Your task to perform on an android device: turn off smart reply in the gmail app Image 0: 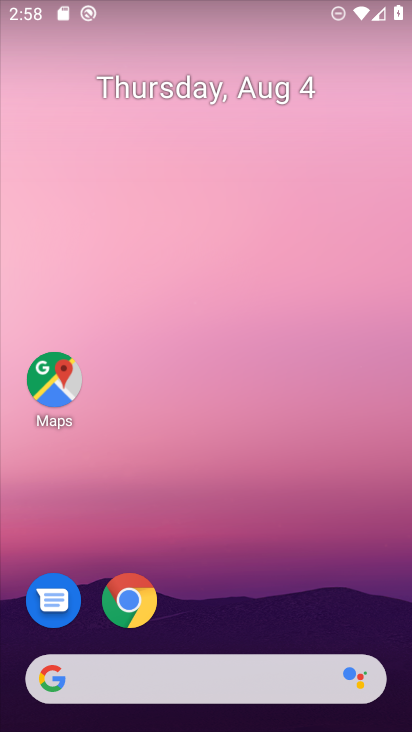
Step 0: drag from (210, 663) to (362, 120)
Your task to perform on an android device: turn off smart reply in the gmail app Image 1: 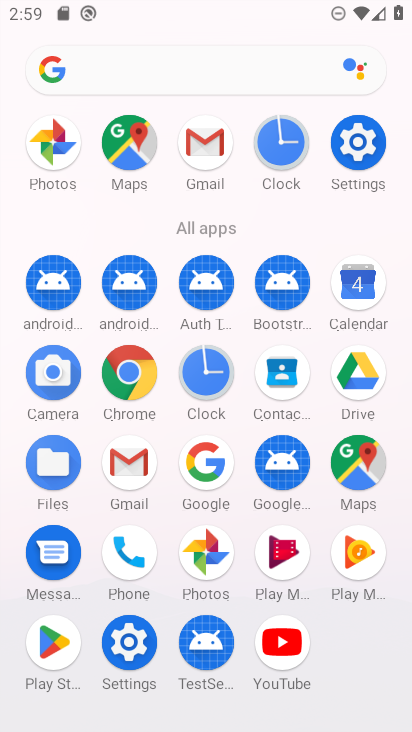
Step 1: click (203, 142)
Your task to perform on an android device: turn off smart reply in the gmail app Image 2: 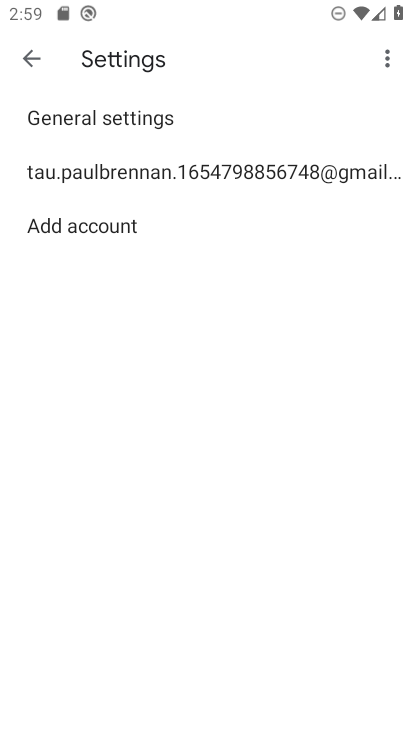
Step 2: click (170, 180)
Your task to perform on an android device: turn off smart reply in the gmail app Image 3: 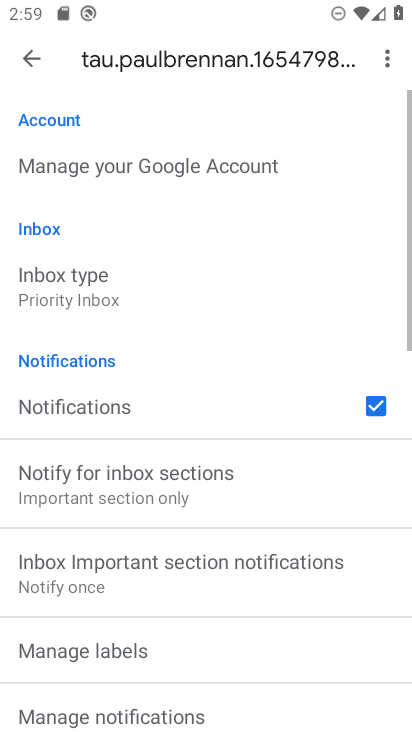
Step 3: drag from (231, 611) to (354, 98)
Your task to perform on an android device: turn off smart reply in the gmail app Image 4: 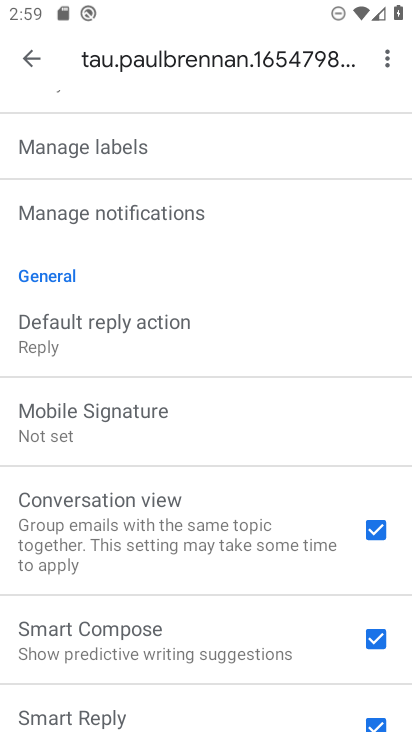
Step 4: drag from (258, 599) to (366, 109)
Your task to perform on an android device: turn off smart reply in the gmail app Image 5: 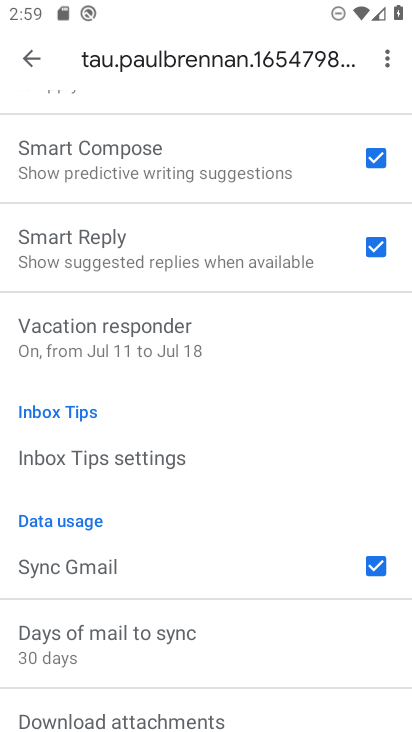
Step 5: click (375, 246)
Your task to perform on an android device: turn off smart reply in the gmail app Image 6: 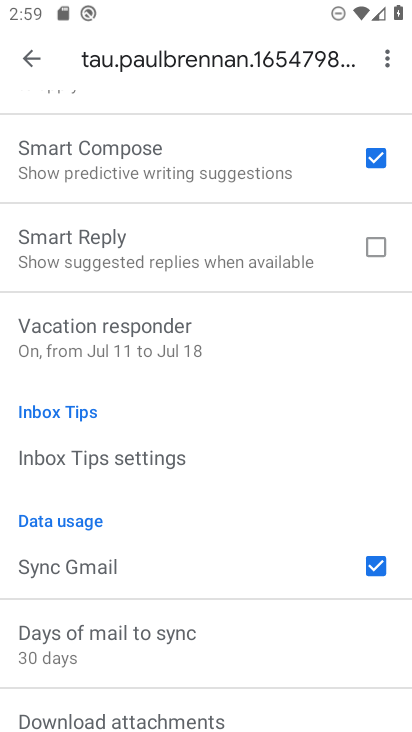
Step 6: task complete